Your task to perform on an android device: open wifi settings Image 0: 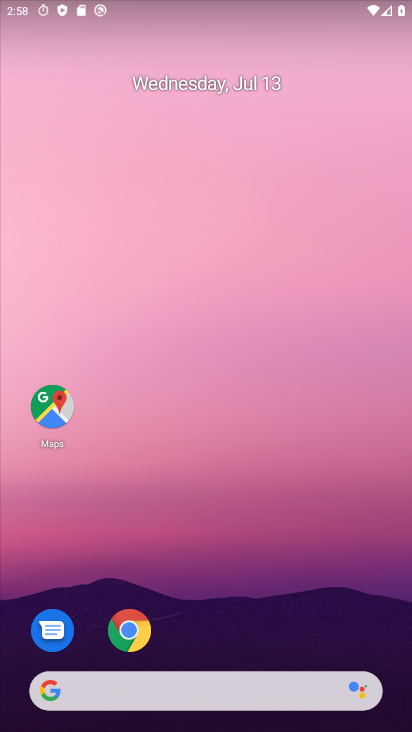
Step 0: drag from (28, 706) to (150, 143)
Your task to perform on an android device: open wifi settings Image 1: 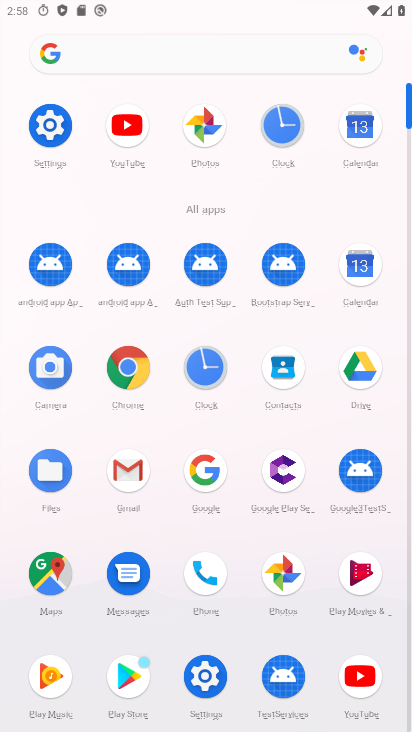
Step 1: click (191, 675)
Your task to perform on an android device: open wifi settings Image 2: 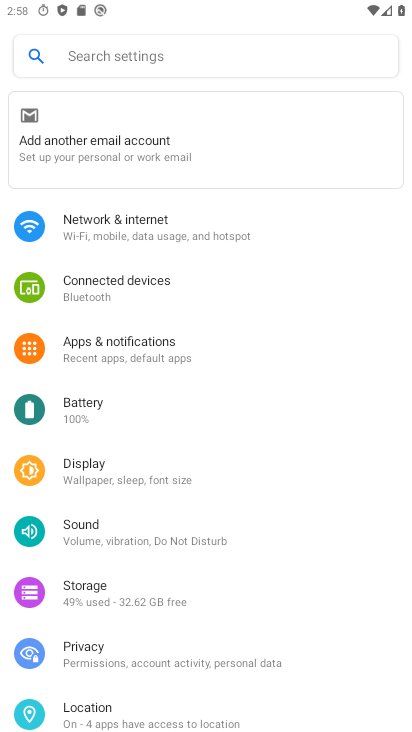
Step 2: click (136, 234)
Your task to perform on an android device: open wifi settings Image 3: 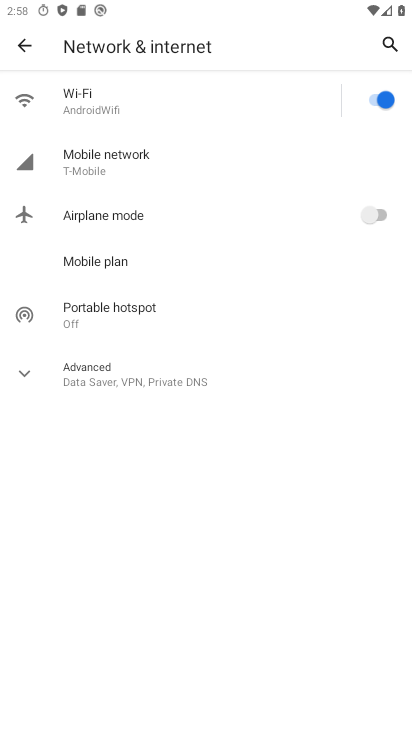
Step 3: task complete